Your task to perform on an android device: Search for vegetarian restaurants on Maps Image 0: 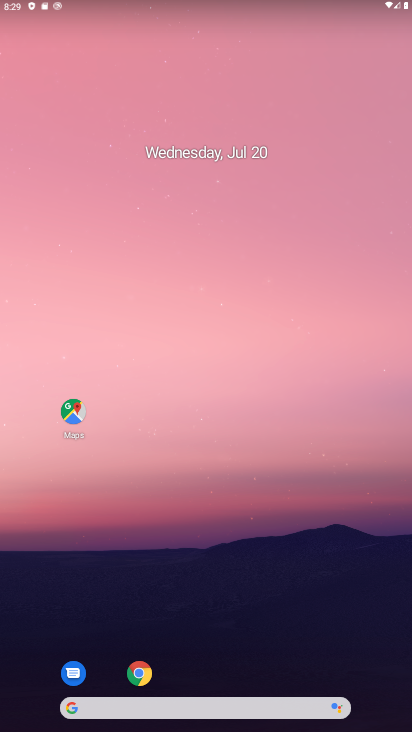
Step 0: drag from (236, 715) to (236, 253)
Your task to perform on an android device: Search for vegetarian restaurants on Maps Image 1: 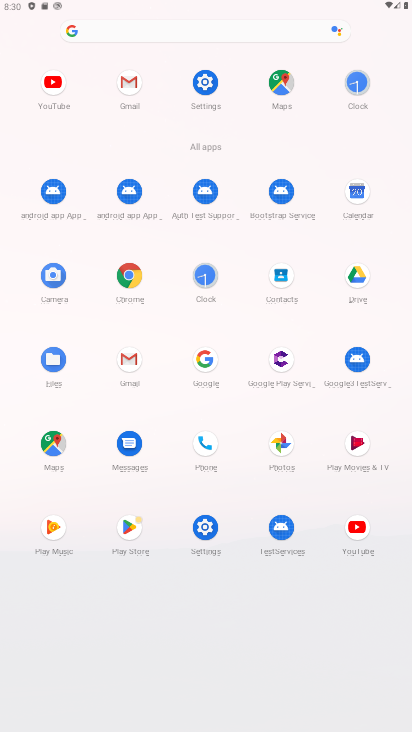
Step 1: click (50, 449)
Your task to perform on an android device: Search for vegetarian restaurants on Maps Image 2: 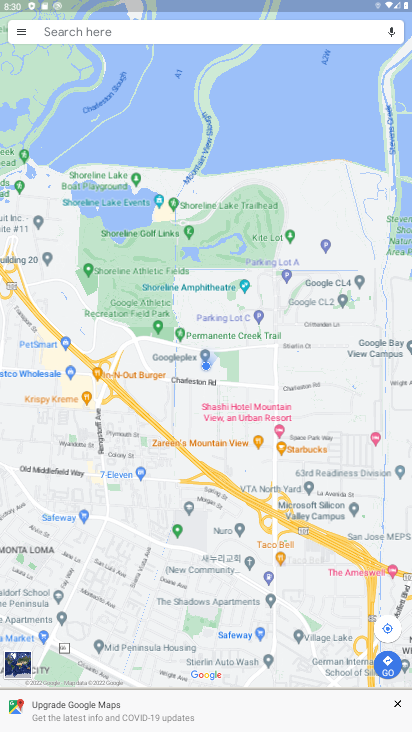
Step 2: click (233, 33)
Your task to perform on an android device: Search for vegetarian restaurants on Maps Image 3: 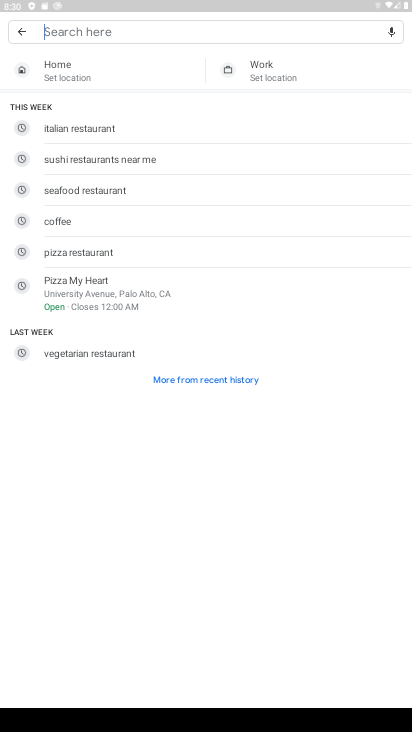
Step 3: type "vegetarian restaurants"
Your task to perform on an android device: Search for vegetarian restaurants on Maps Image 4: 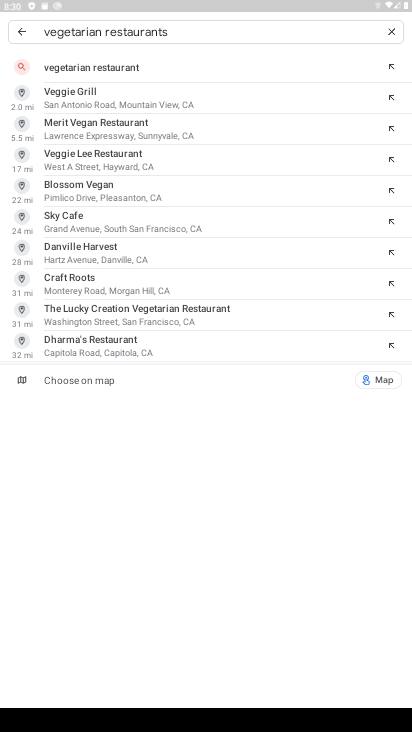
Step 4: click (80, 65)
Your task to perform on an android device: Search for vegetarian restaurants on Maps Image 5: 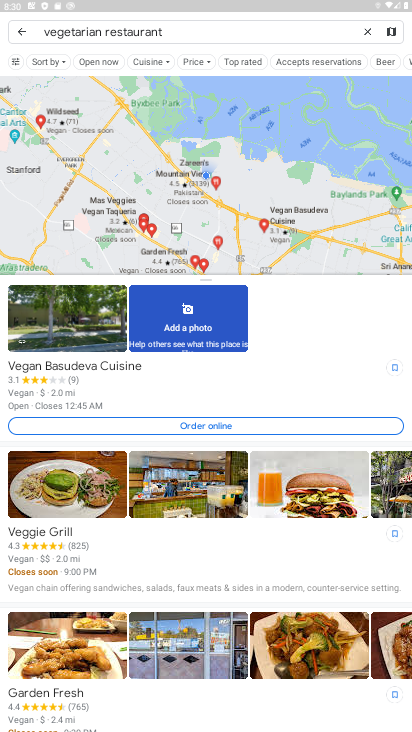
Step 5: task complete